Your task to perform on an android device: open chrome and create a bookmark for the current page Image 0: 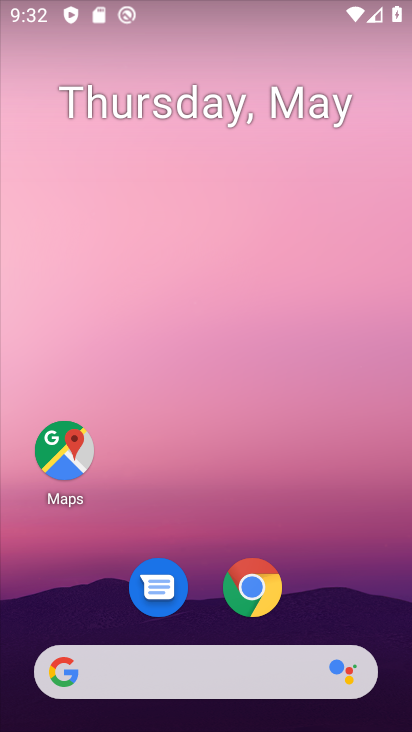
Step 0: click (246, 594)
Your task to perform on an android device: open chrome and create a bookmark for the current page Image 1: 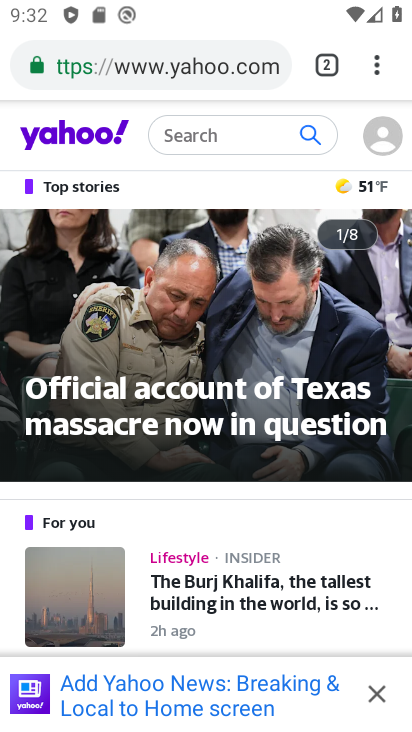
Step 1: click (376, 68)
Your task to perform on an android device: open chrome and create a bookmark for the current page Image 2: 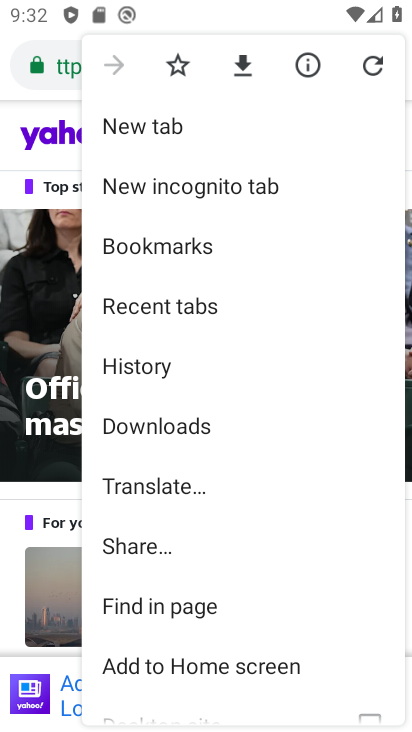
Step 2: click (176, 64)
Your task to perform on an android device: open chrome and create a bookmark for the current page Image 3: 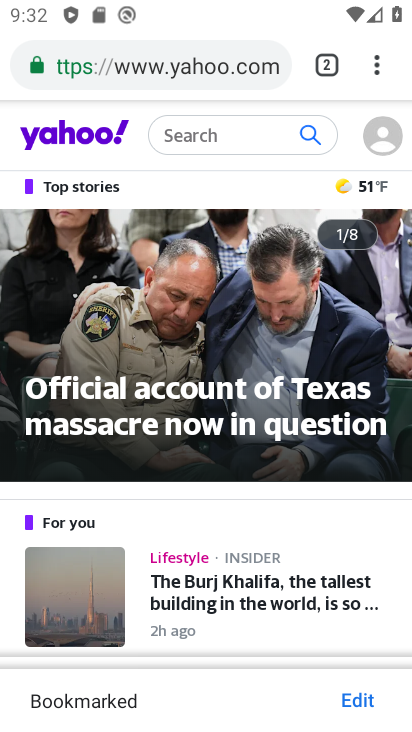
Step 3: task complete